Your task to perform on an android device: add a contact Image 0: 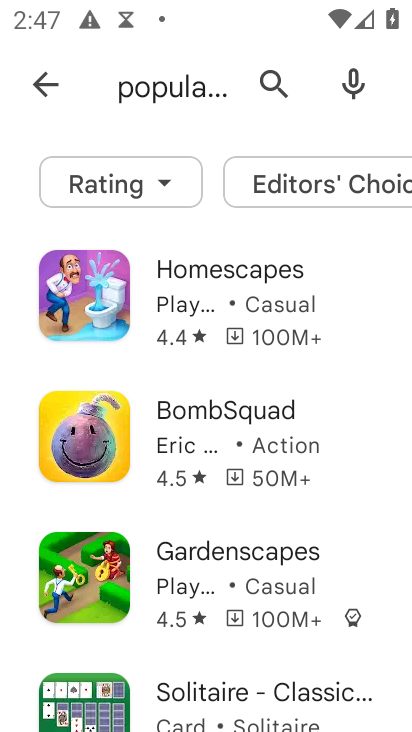
Step 0: press home button
Your task to perform on an android device: add a contact Image 1: 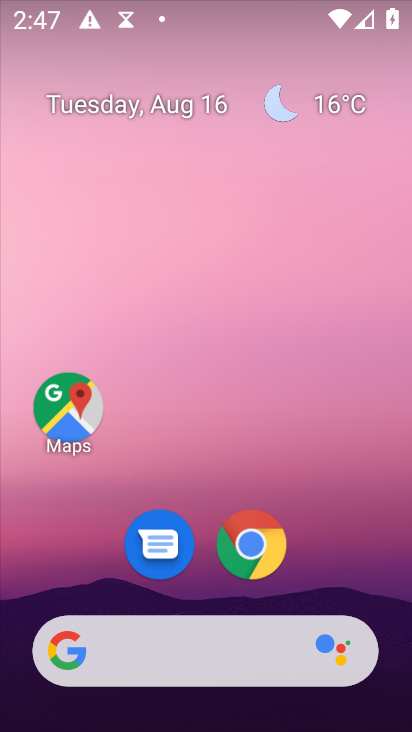
Step 1: drag from (178, 672) to (285, 102)
Your task to perform on an android device: add a contact Image 2: 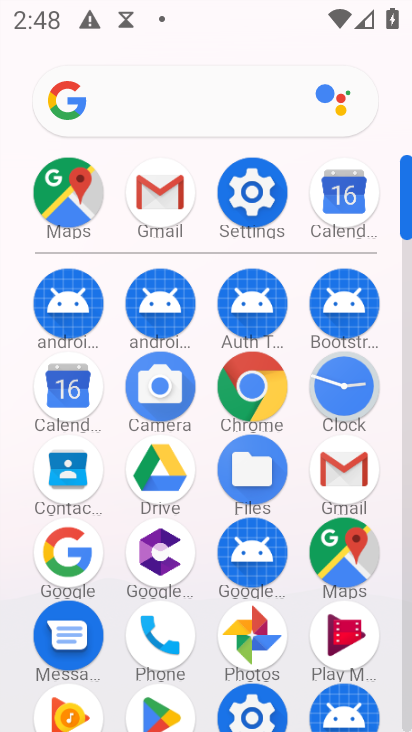
Step 2: click (65, 471)
Your task to perform on an android device: add a contact Image 3: 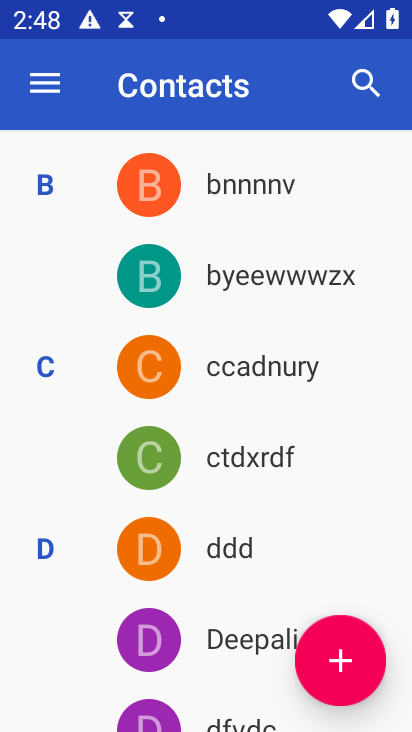
Step 3: click (338, 661)
Your task to perform on an android device: add a contact Image 4: 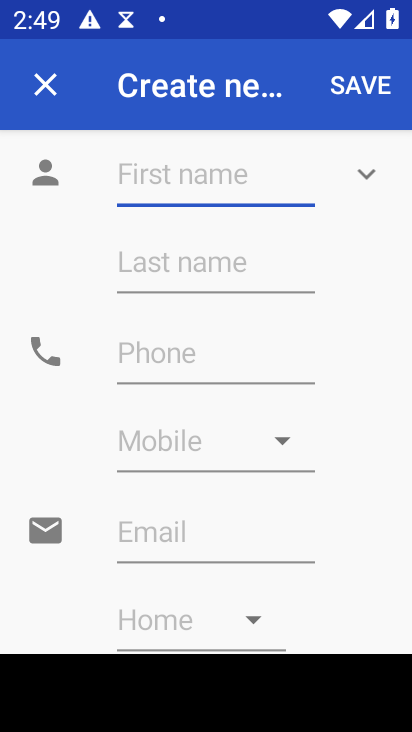
Step 4: type "Ramawadh"
Your task to perform on an android device: add a contact Image 5: 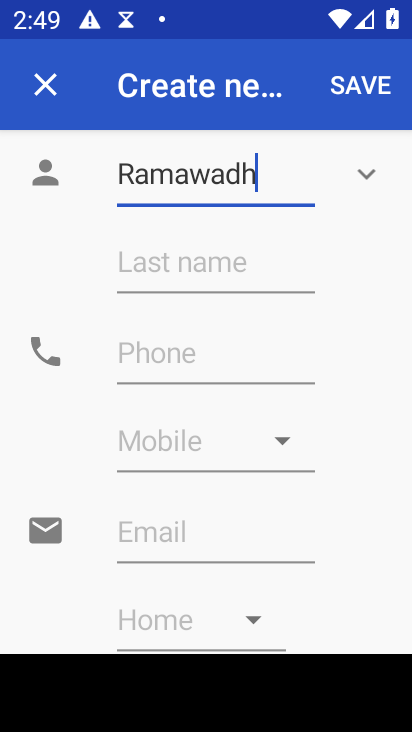
Step 5: click (255, 270)
Your task to perform on an android device: add a contact Image 6: 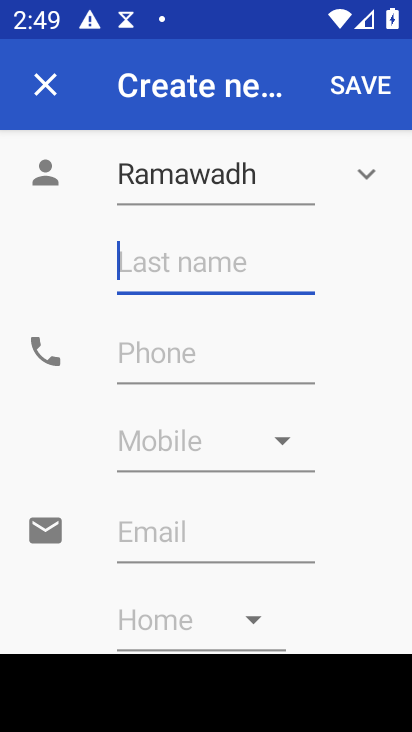
Step 6: type "Ojha"
Your task to perform on an android device: add a contact Image 7: 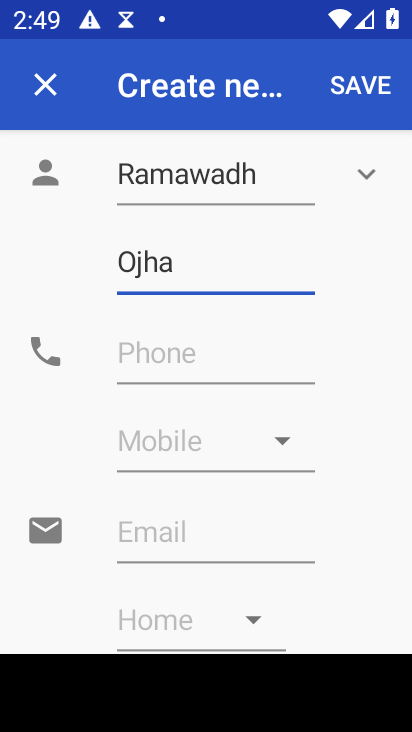
Step 7: click (178, 348)
Your task to perform on an android device: add a contact Image 8: 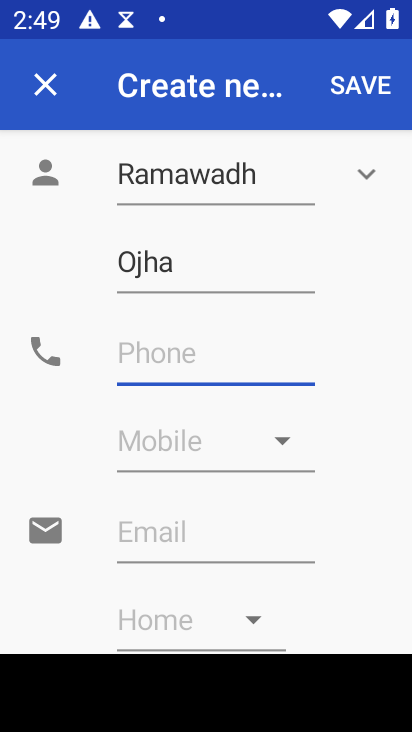
Step 8: type "0987654321"
Your task to perform on an android device: add a contact Image 9: 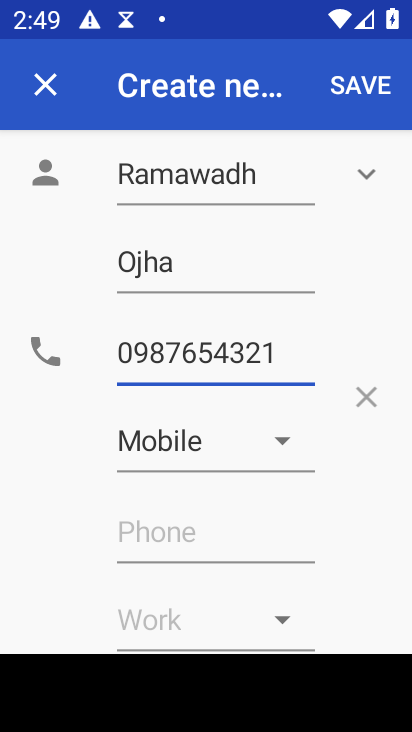
Step 9: click (381, 85)
Your task to perform on an android device: add a contact Image 10: 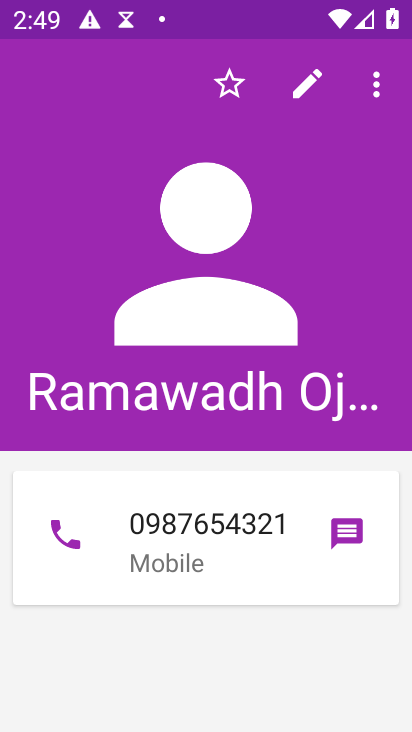
Step 10: task complete